Your task to perform on an android device: Toggle the flashlight Image 0: 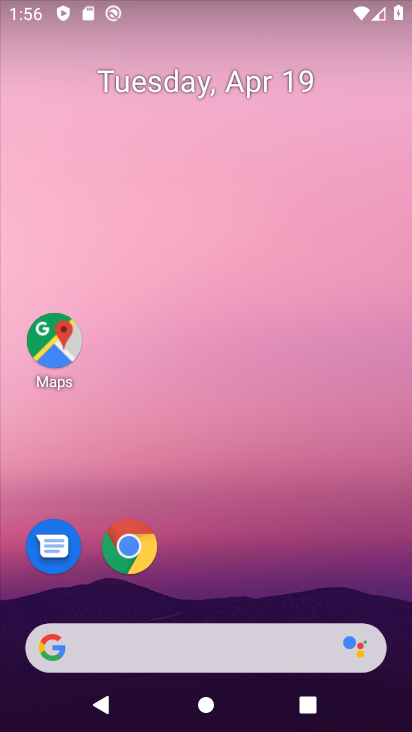
Step 0: drag from (115, 14) to (125, 281)
Your task to perform on an android device: Toggle the flashlight Image 1: 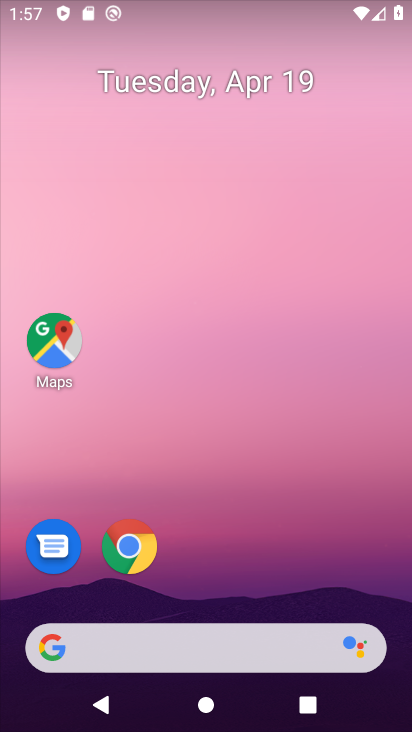
Step 1: task complete